Your task to perform on an android device: read, delete, or share a saved page in the chrome app Image 0: 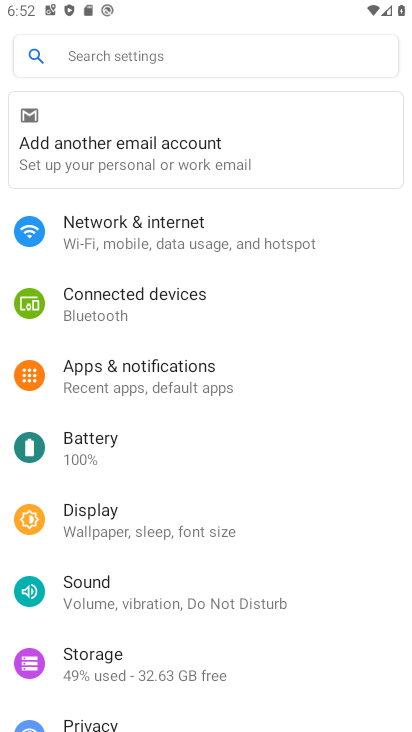
Step 0: press home button
Your task to perform on an android device: read, delete, or share a saved page in the chrome app Image 1: 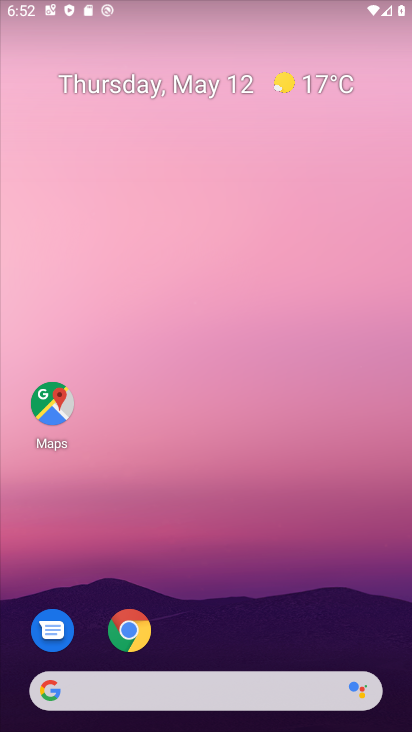
Step 1: drag from (340, 615) to (211, 53)
Your task to perform on an android device: read, delete, or share a saved page in the chrome app Image 2: 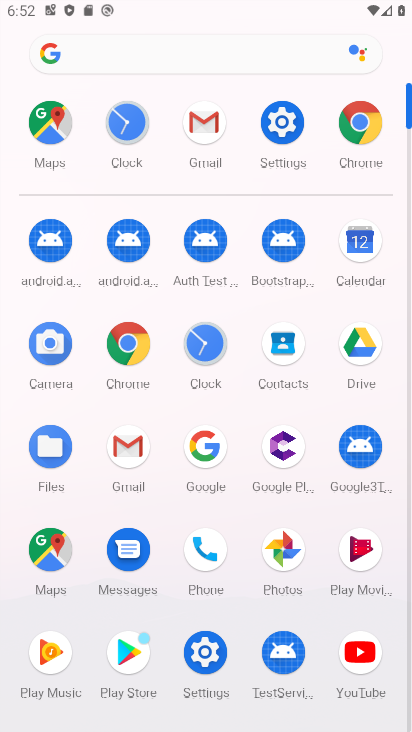
Step 2: click (371, 119)
Your task to perform on an android device: read, delete, or share a saved page in the chrome app Image 3: 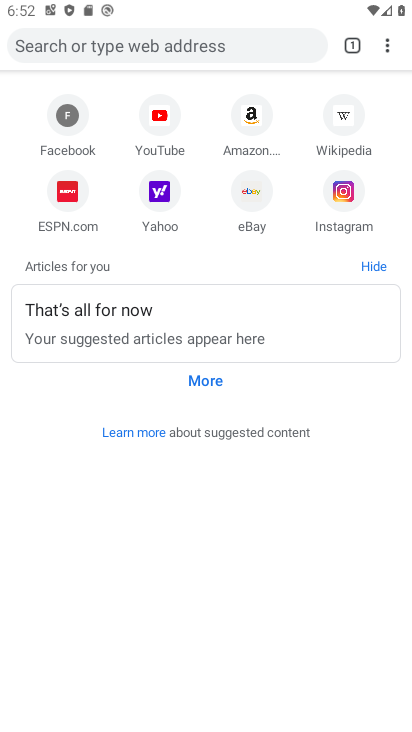
Step 3: task complete